Your task to perform on an android device: turn on location history Image 0: 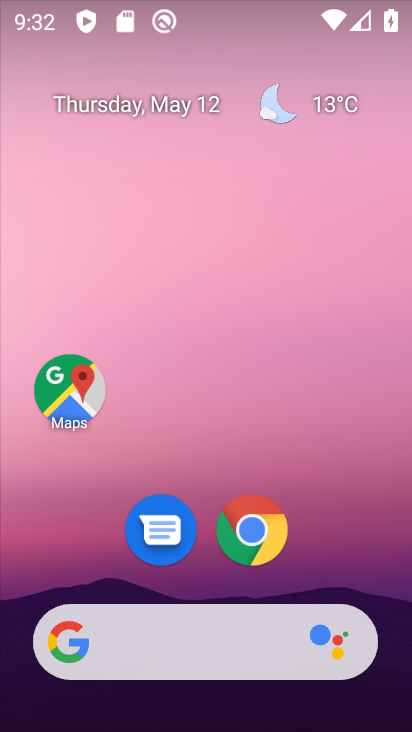
Step 0: drag from (330, 569) to (222, 19)
Your task to perform on an android device: turn on location history Image 1: 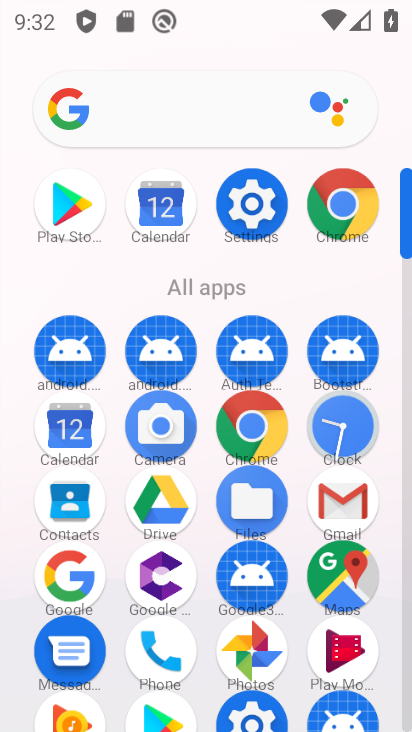
Step 1: click (230, 194)
Your task to perform on an android device: turn on location history Image 2: 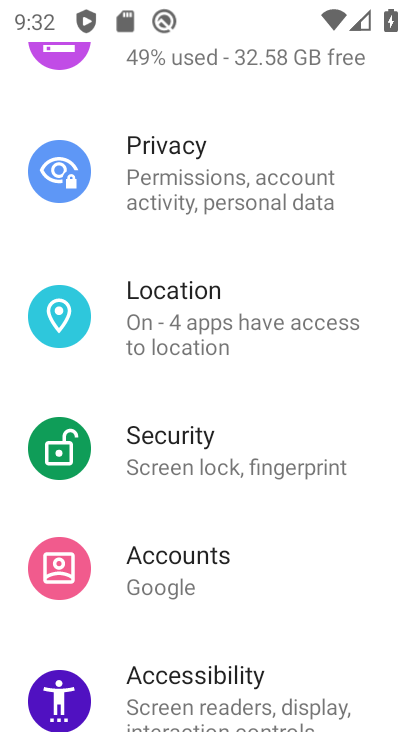
Step 2: click (188, 318)
Your task to perform on an android device: turn on location history Image 3: 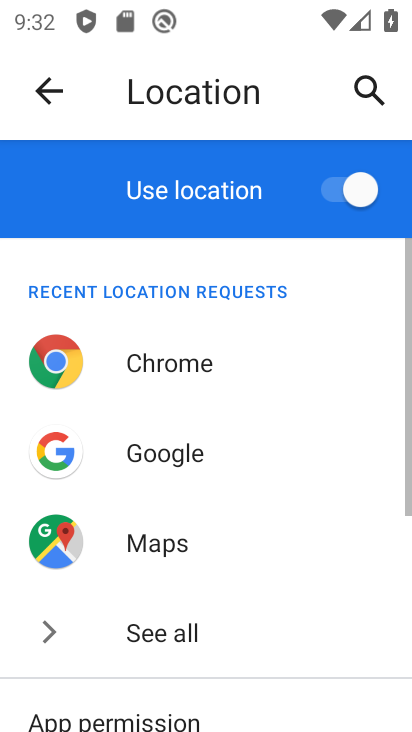
Step 3: drag from (254, 488) to (201, 8)
Your task to perform on an android device: turn on location history Image 4: 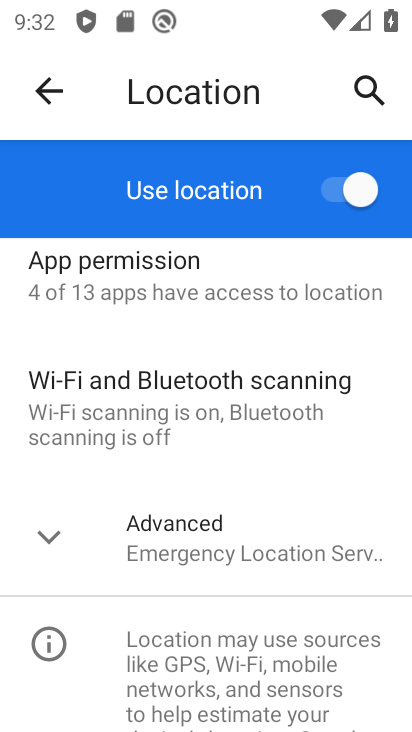
Step 4: click (190, 538)
Your task to perform on an android device: turn on location history Image 5: 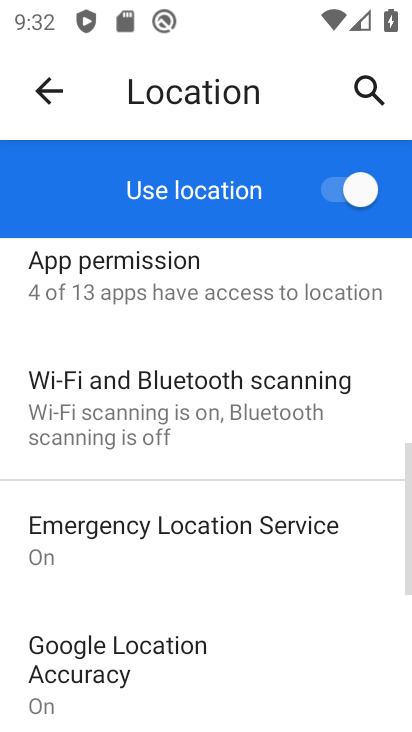
Step 5: drag from (225, 652) to (154, 271)
Your task to perform on an android device: turn on location history Image 6: 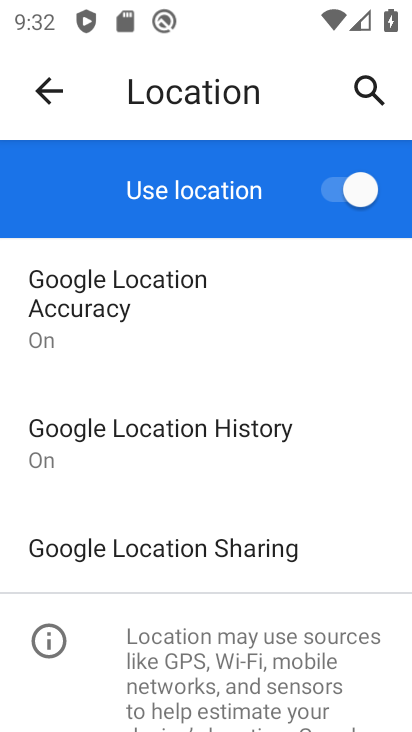
Step 6: click (155, 429)
Your task to perform on an android device: turn on location history Image 7: 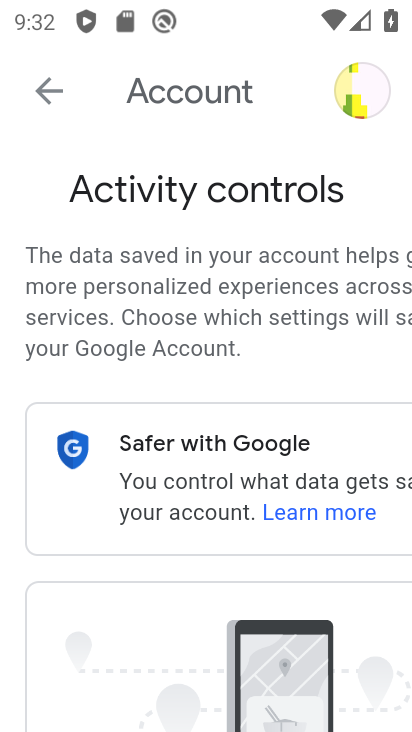
Step 7: drag from (191, 514) to (53, 101)
Your task to perform on an android device: turn on location history Image 8: 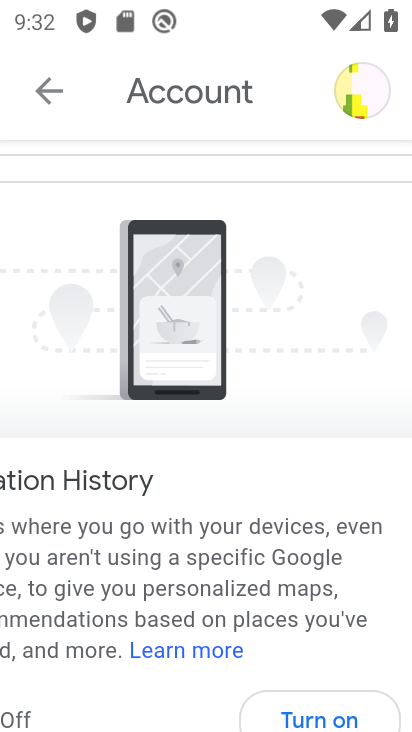
Step 8: click (44, 178)
Your task to perform on an android device: turn on location history Image 9: 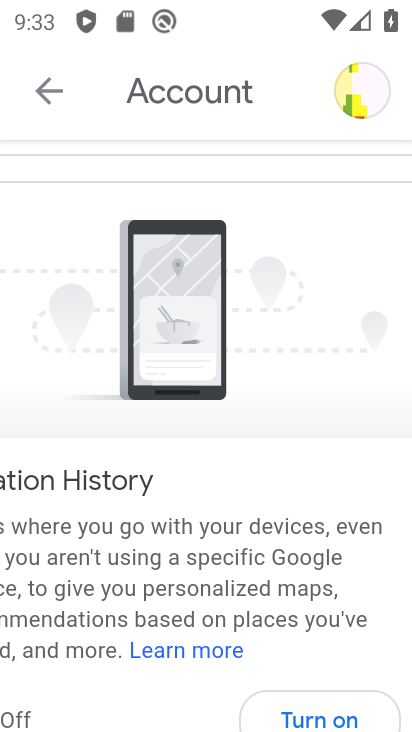
Step 9: task complete